Your task to perform on an android device: Show me popular games on the Play Store Image 0: 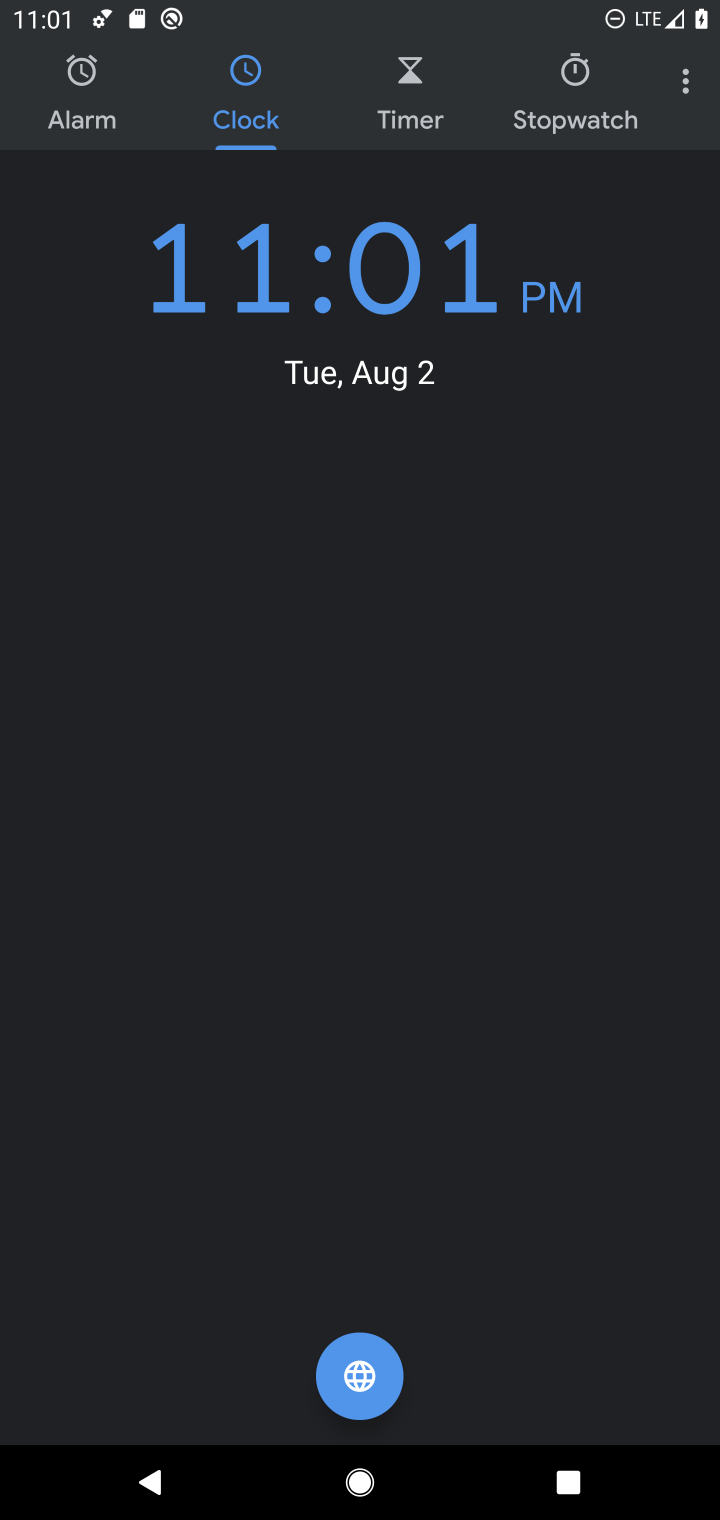
Step 0: press home button
Your task to perform on an android device: Show me popular games on the Play Store Image 1: 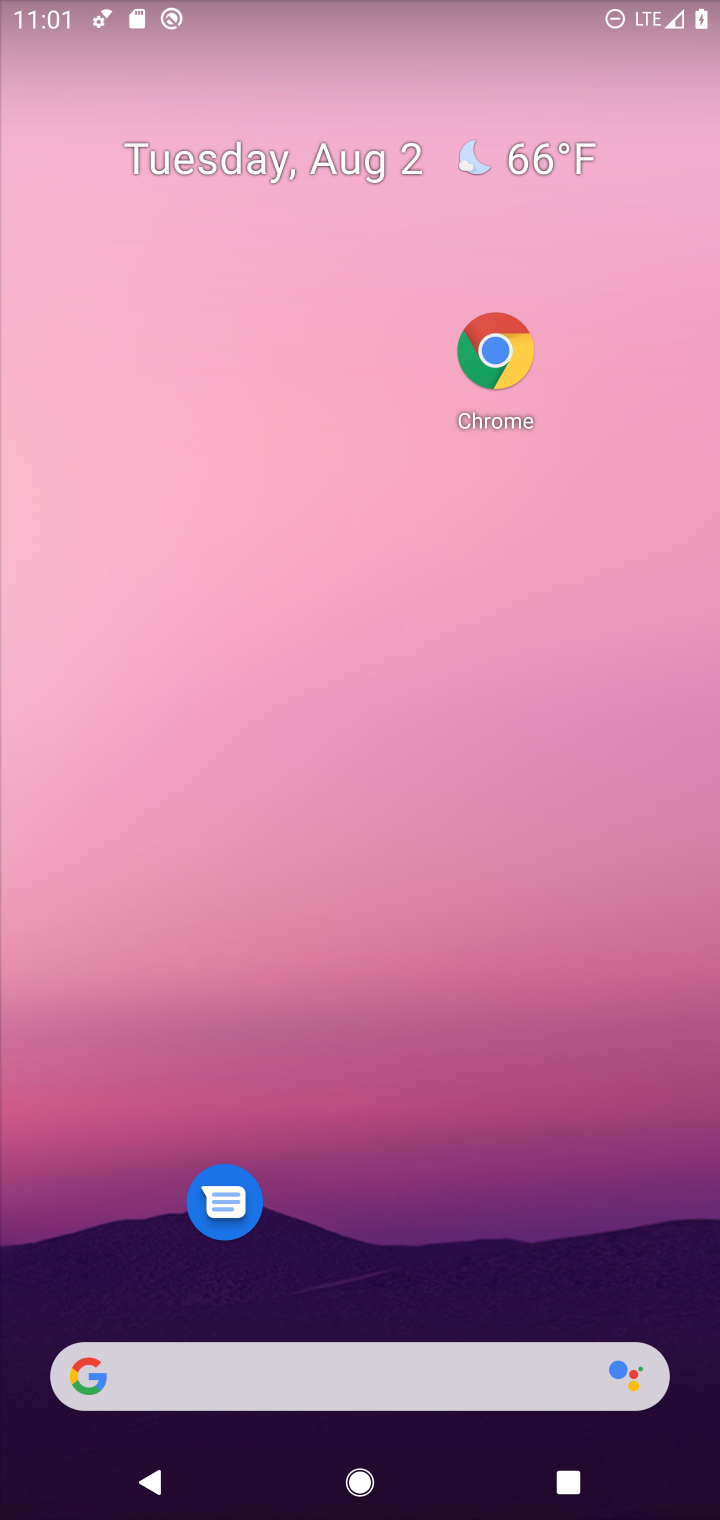
Step 1: drag from (408, 1086) to (350, 75)
Your task to perform on an android device: Show me popular games on the Play Store Image 2: 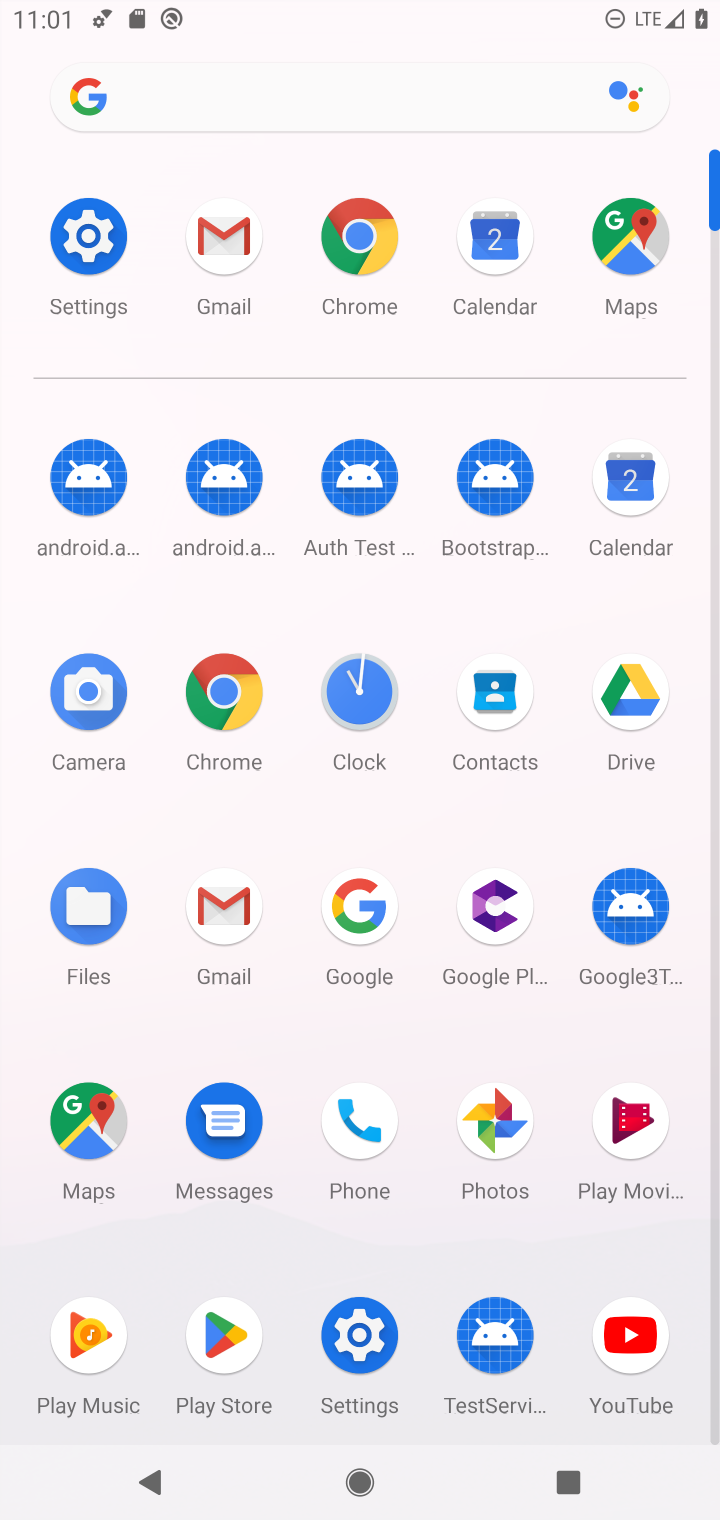
Step 2: click (229, 1342)
Your task to perform on an android device: Show me popular games on the Play Store Image 3: 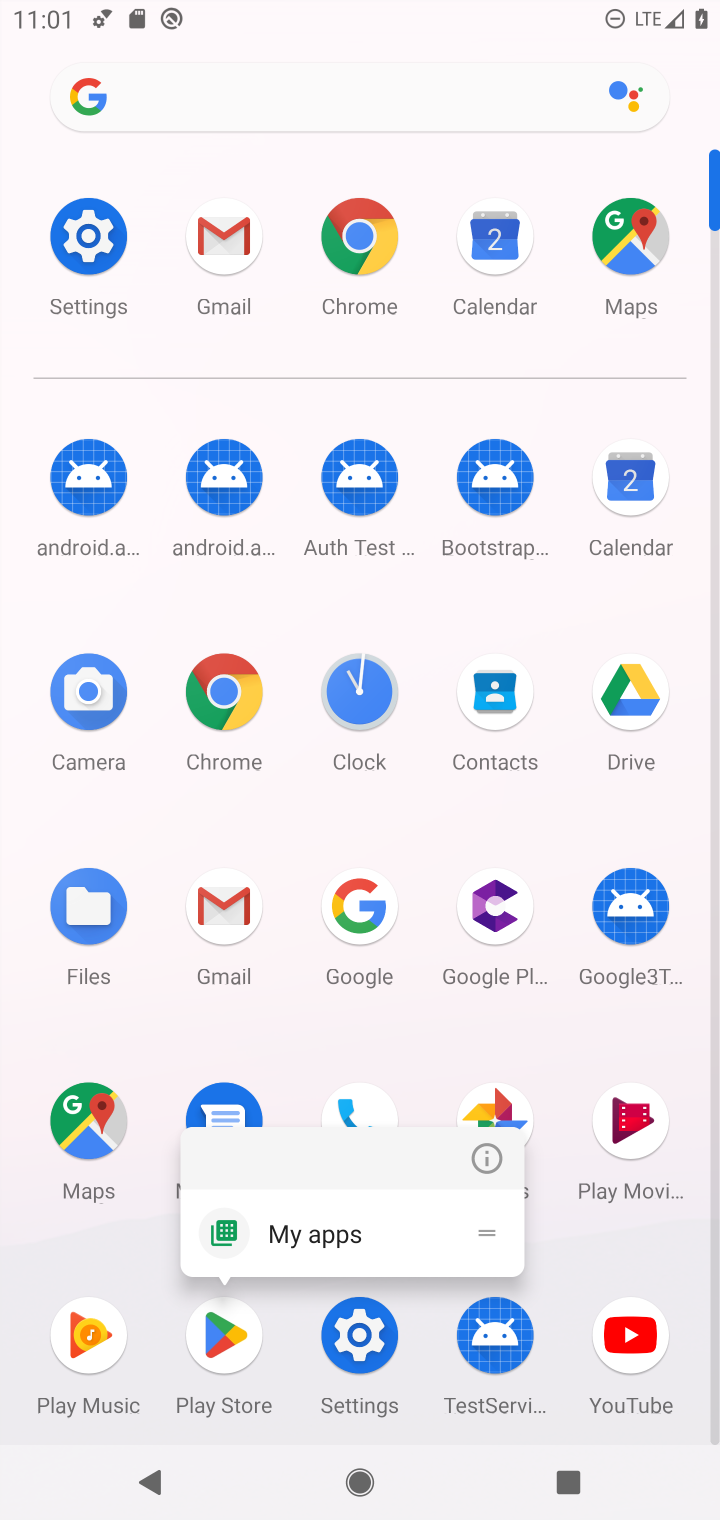
Step 3: click (229, 1329)
Your task to perform on an android device: Show me popular games on the Play Store Image 4: 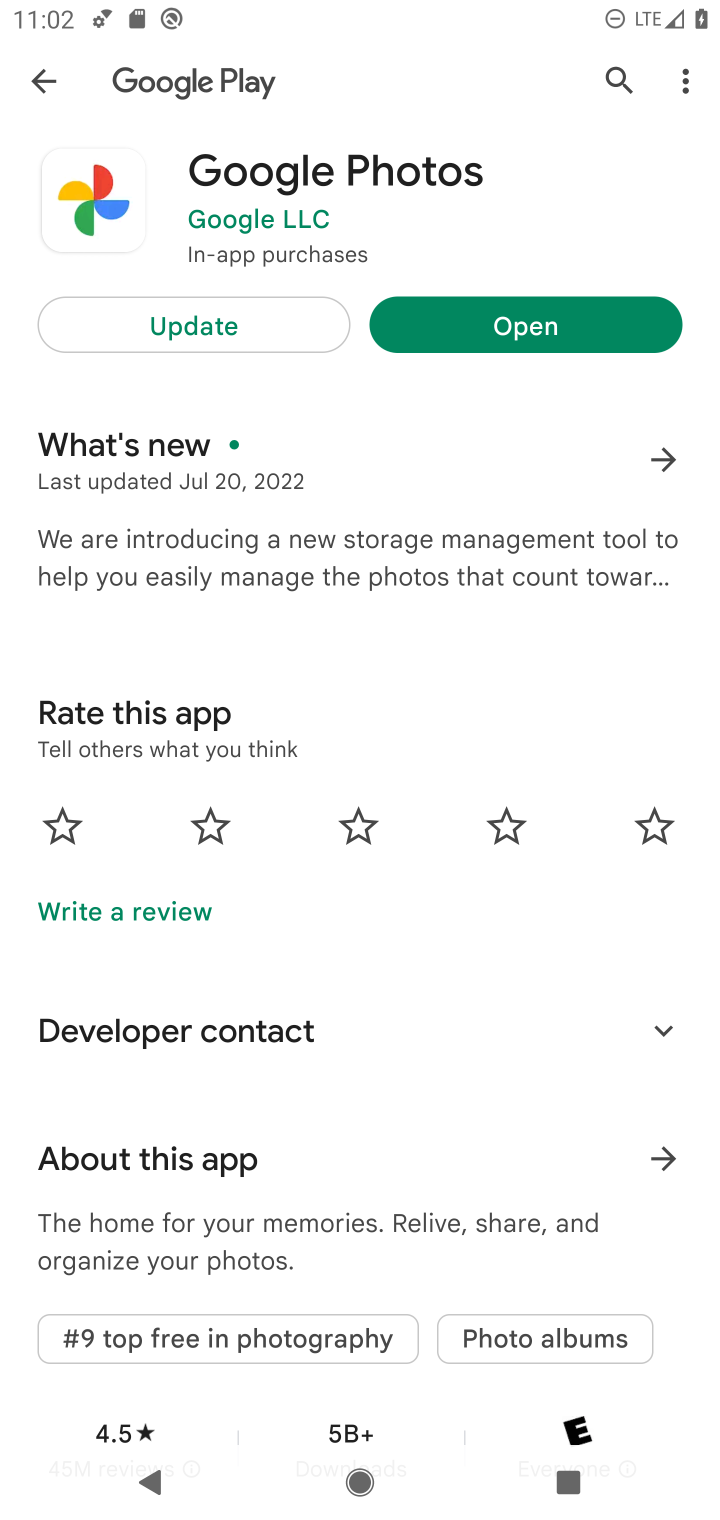
Step 4: click (43, 88)
Your task to perform on an android device: Show me popular games on the Play Store Image 5: 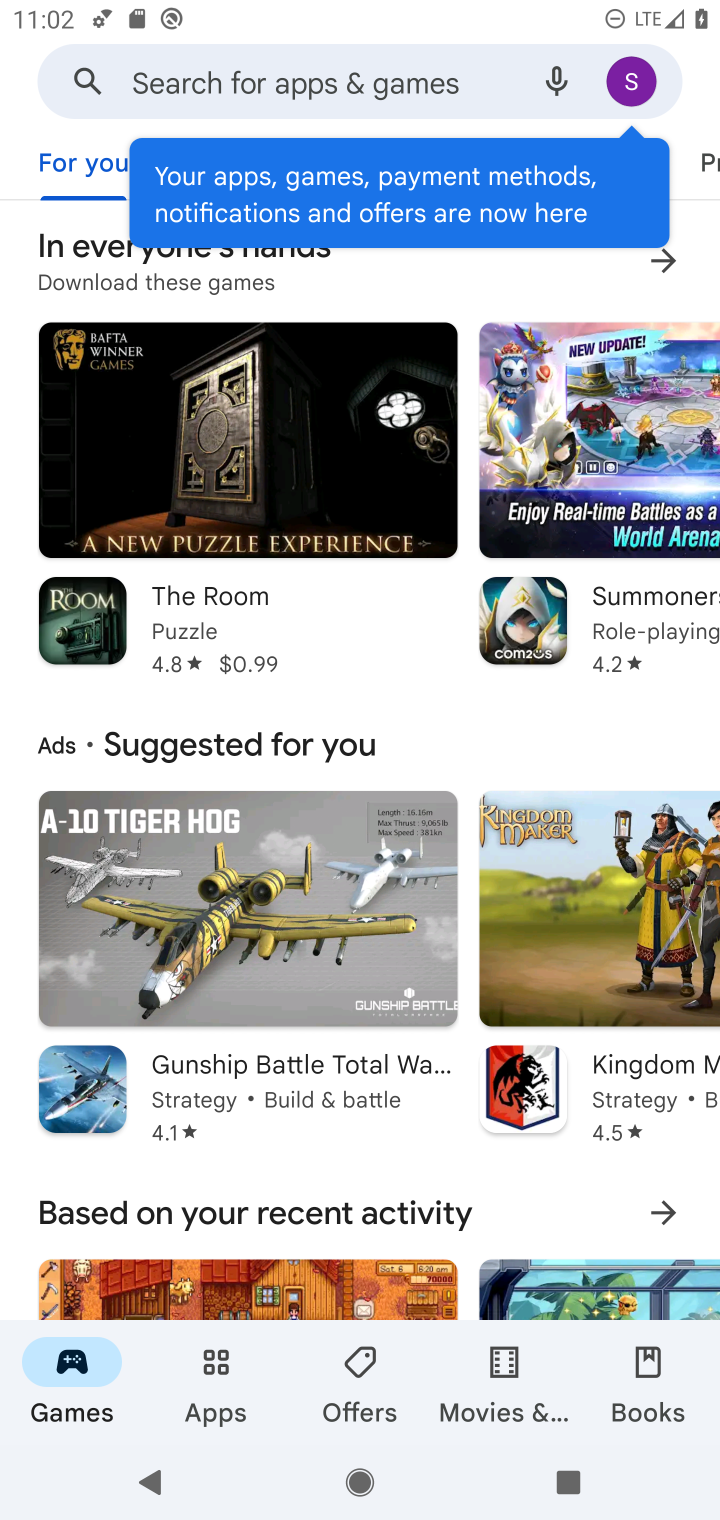
Step 5: drag from (336, 963) to (354, 1187)
Your task to perform on an android device: Show me popular games on the Play Store Image 6: 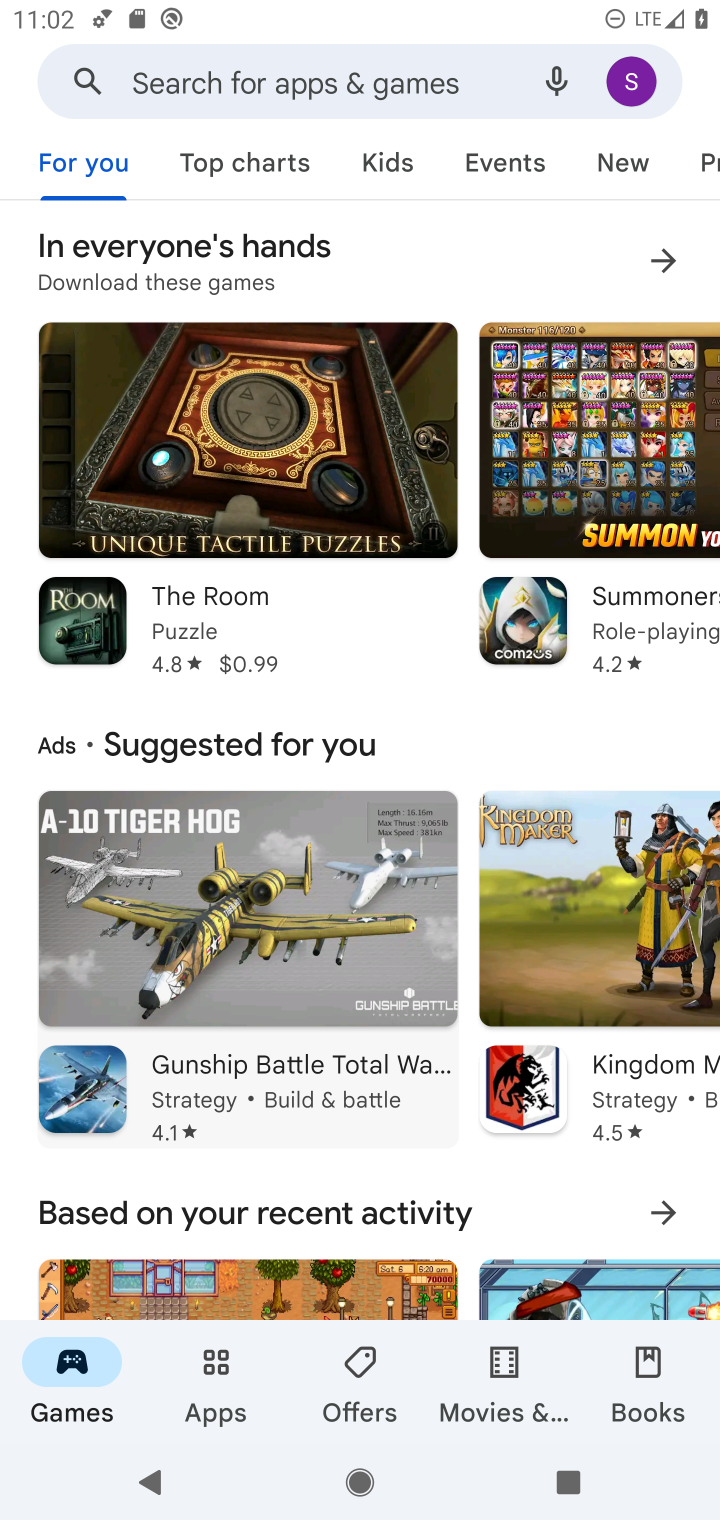
Step 6: click (439, 964)
Your task to perform on an android device: Show me popular games on the Play Store Image 7: 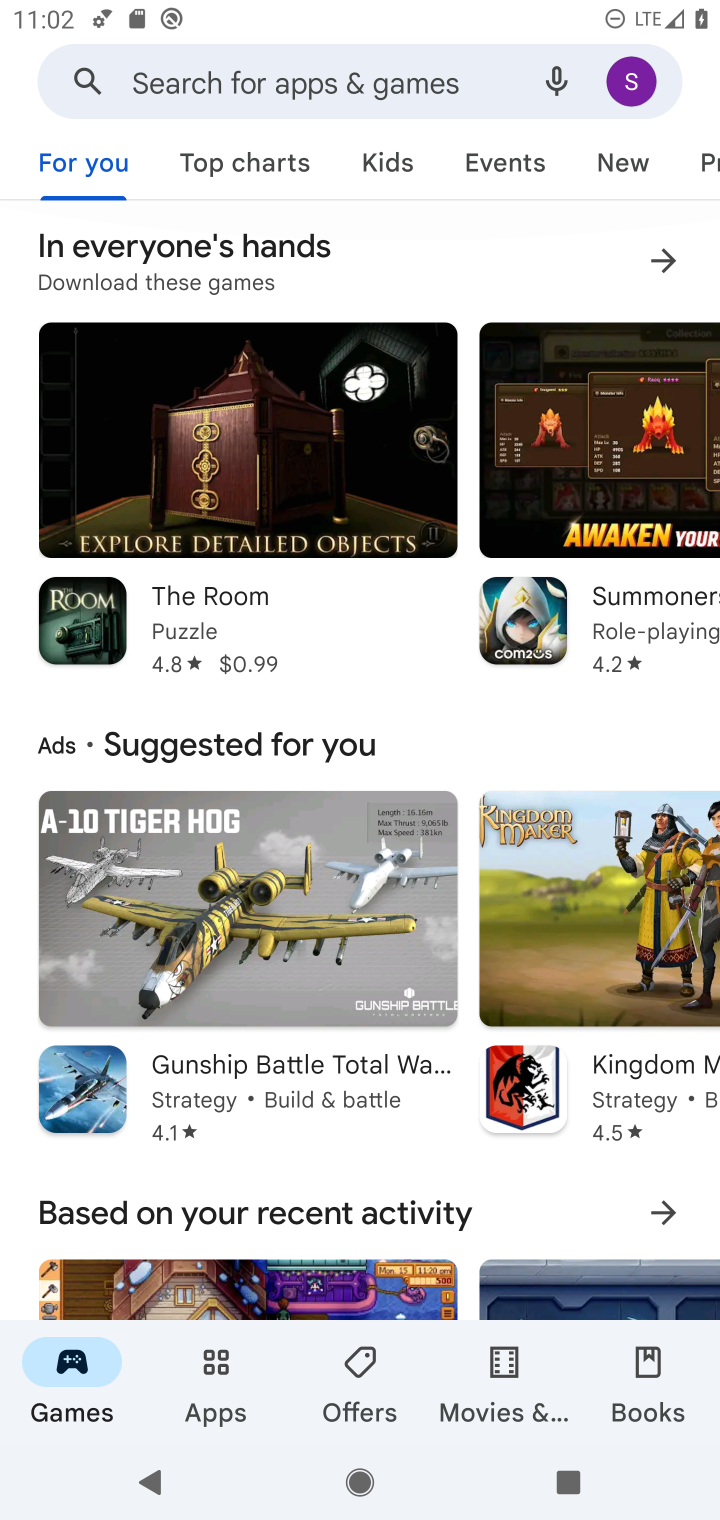
Step 7: task complete